Your task to perform on an android device: Open Wikipedia Image 0: 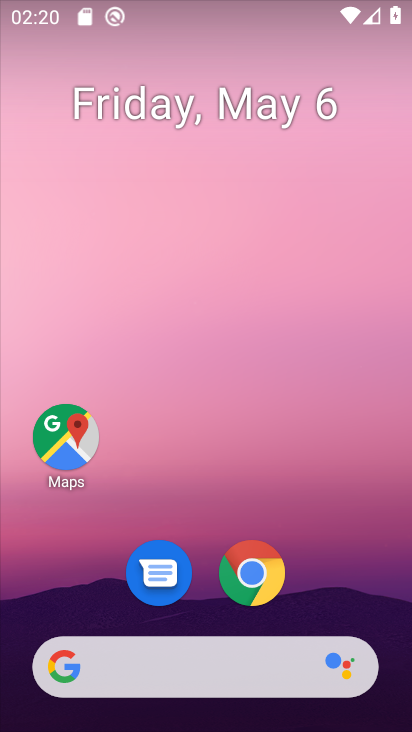
Step 0: drag from (313, 539) to (313, 303)
Your task to perform on an android device: Open Wikipedia Image 1: 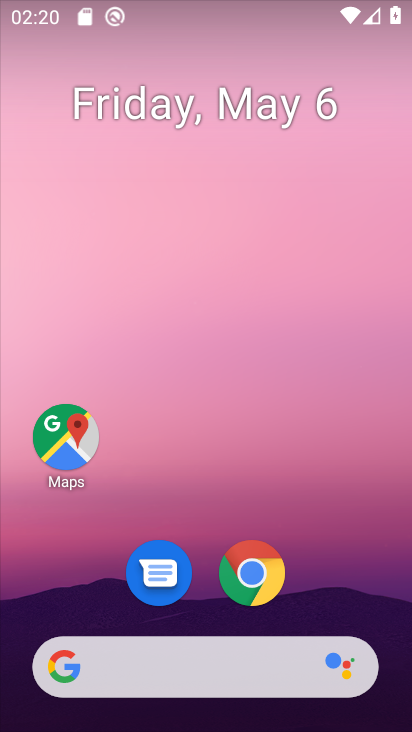
Step 1: drag from (320, 568) to (330, 247)
Your task to perform on an android device: Open Wikipedia Image 2: 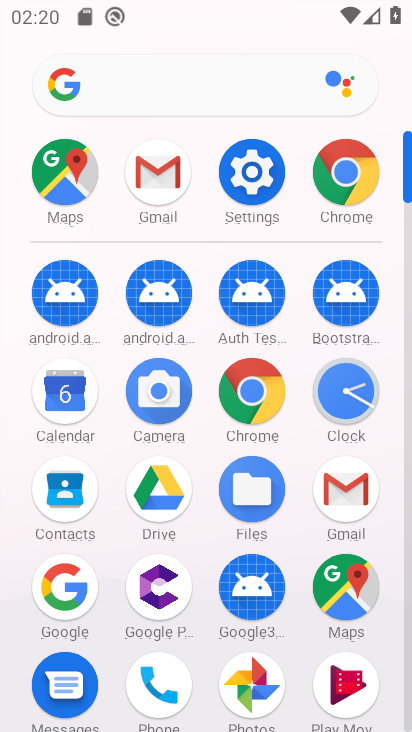
Step 2: click (261, 386)
Your task to perform on an android device: Open Wikipedia Image 3: 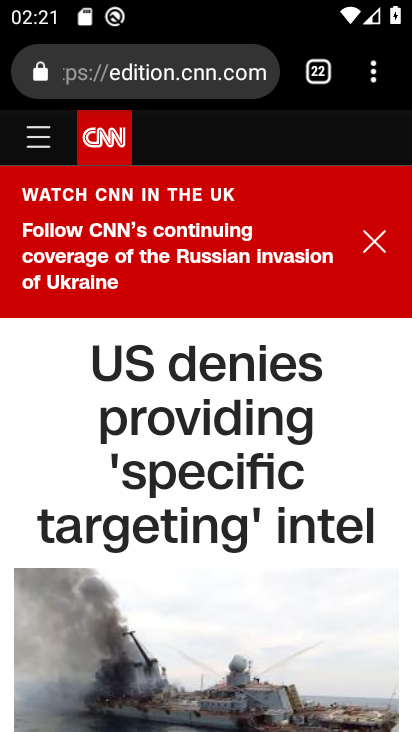
Step 3: click (357, 73)
Your task to perform on an android device: Open Wikipedia Image 4: 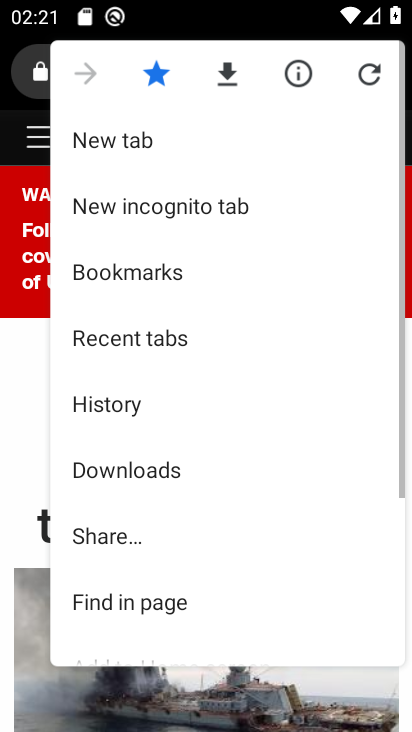
Step 4: click (119, 140)
Your task to perform on an android device: Open Wikipedia Image 5: 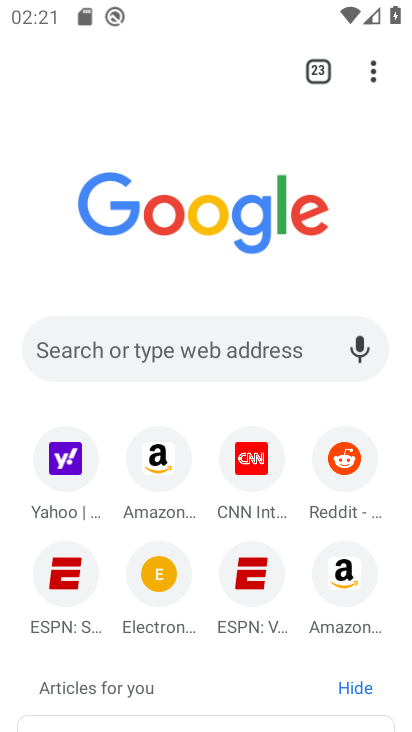
Step 5: drag from (236, 661) to (312, 416)
Your task to perform on an android device: Open Wikipedia Image 6: 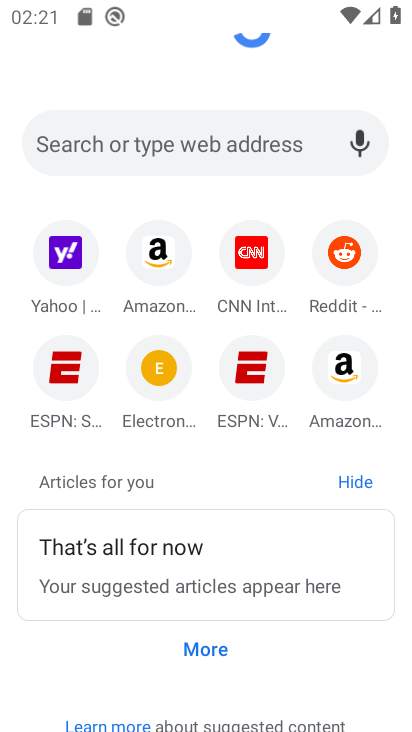
Step 6: click (221, 146)
Your task to perform on an android device: Open Wikipedia Image 7: 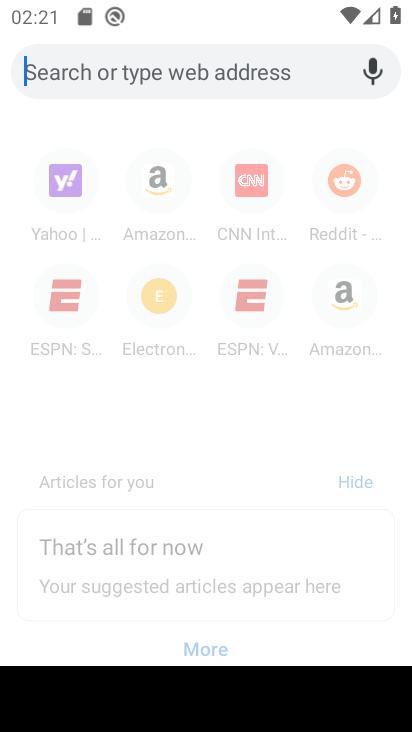
Step 7: type "Wikipedia"
Your task to perform on an android device: Open Wikipedia Image 8: 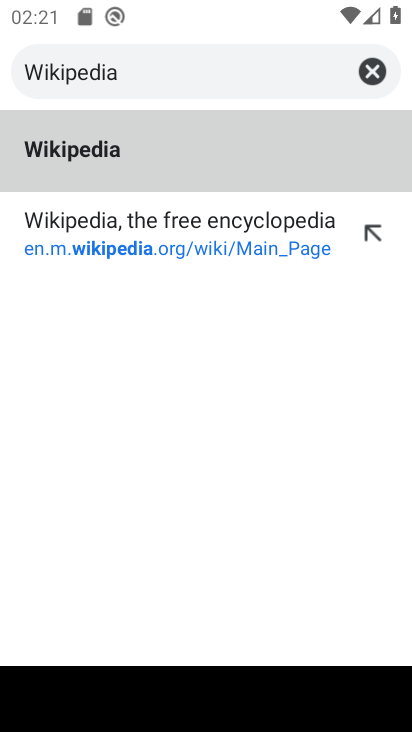
Step 8: click (166, 150)
Your task to perform on an android device: Open Wikipedia Image 9: 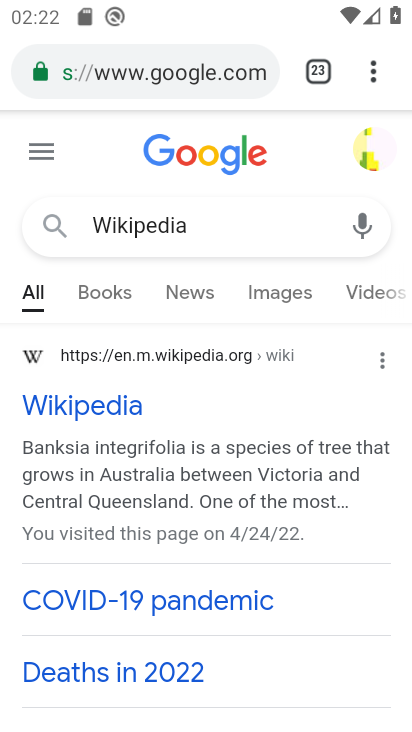
Step 9: task complete